Your task to perform on an android device: set the stopwatch Image 0: 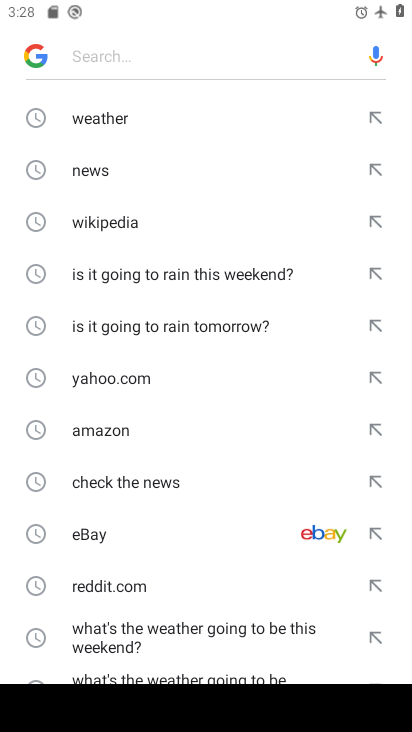
Step 0: press home button
Your task to perform on an android device: set the stopwatch Image 1: 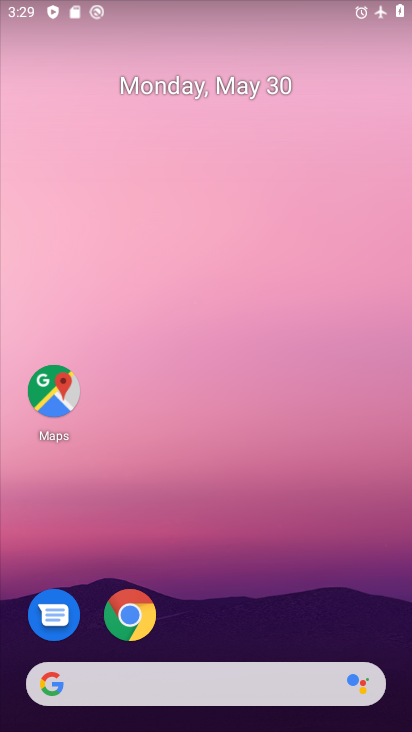
Step 1: drag from (227, 599) to (332, 64)
Your task to perform on an android device: set the stopwatch Image 2: 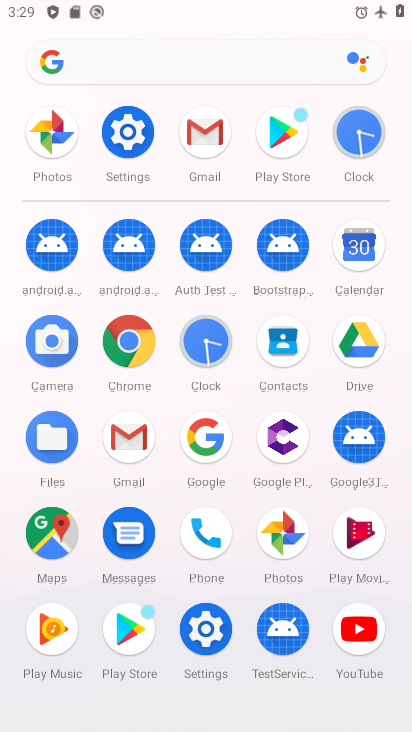
Step 2: click (210, 337)
Your task to perform on an android device: set the stopwatch Image 3: 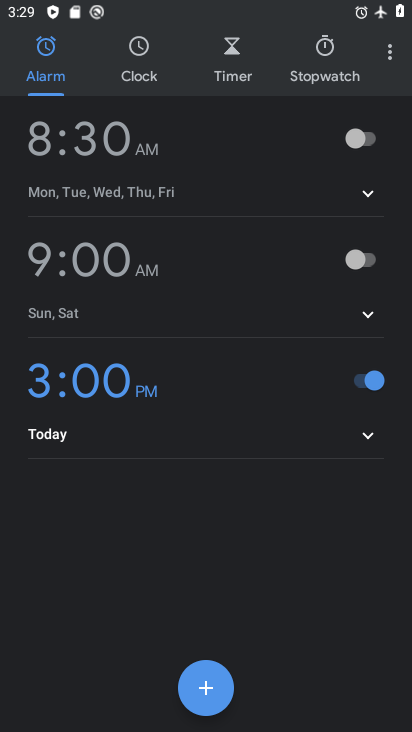
Step 3: click (337, 52)
Your task to perform on an android device: set the stopwatch Image 4: 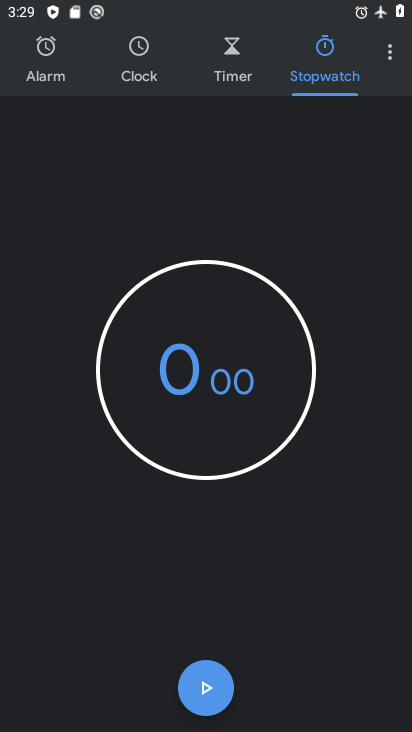
Step 4: task complete